Your task to perform on an android device: Open network settings Image 0: 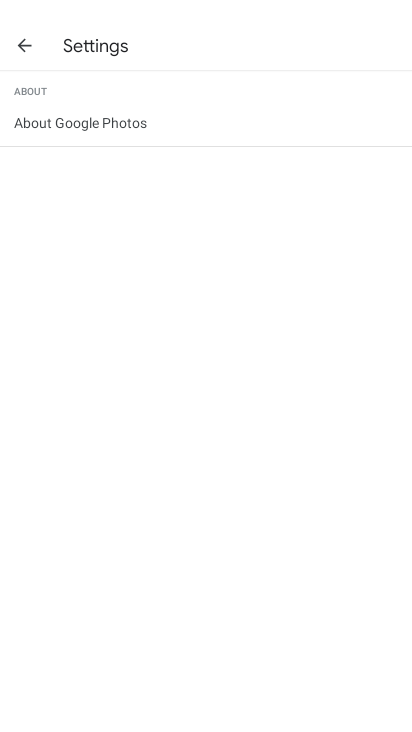
Step 0: press home button
Your task to perform on an android device: Open network settings Image 1: 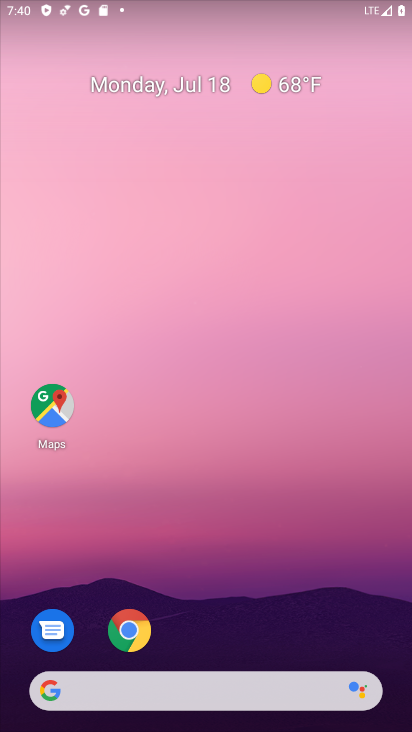
Step 1: drag from (162, 636) to (285, 161)
Your task to perform on an android device: Open network settings Image 2: 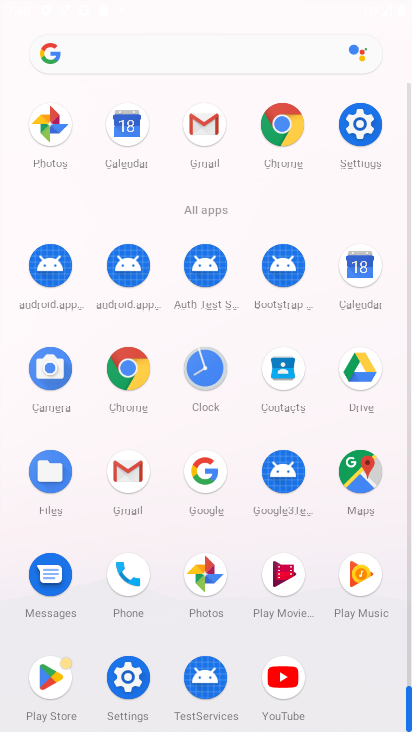
Step 2: click (367, 154)
Your task to perform on an android device: Open network settings Image 3: 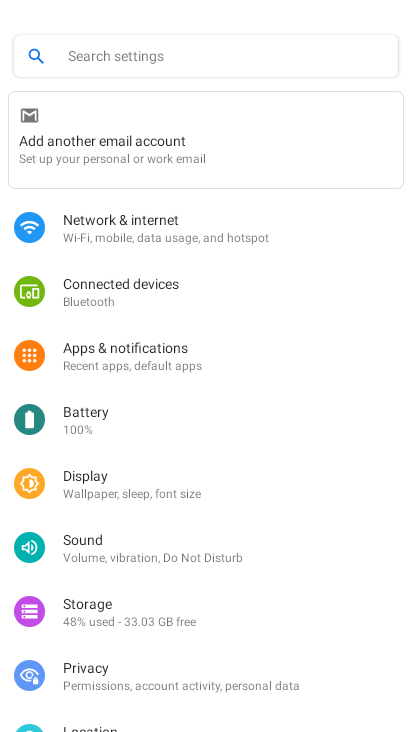
Step 3: click (211, 232)
Your task to perform on an android device: Open network settings Image 4: 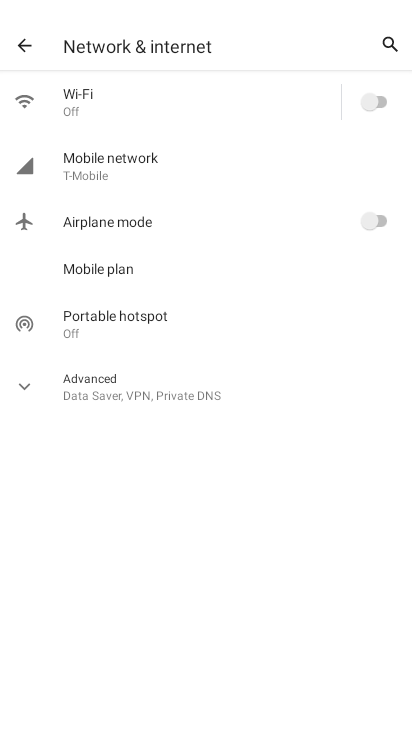
Step 4: click (130, 174)
Your task to perform on an android device: Open network settings Image 5: 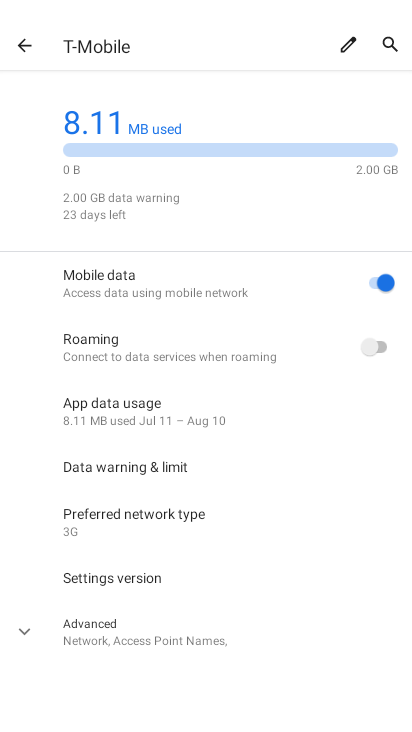
Step 5: task complete